Your task to perform on an android device: Is it going to rain tomorrow? Image 0: 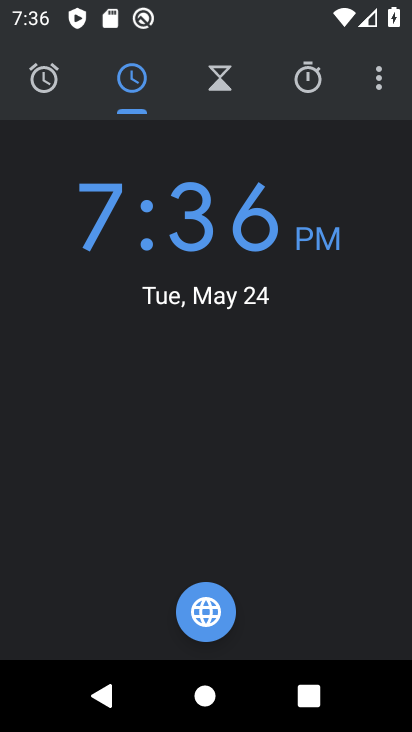
Step 0: press home button
Your task to perform on an android device: Is it going to rain tomorrow? Image 1: 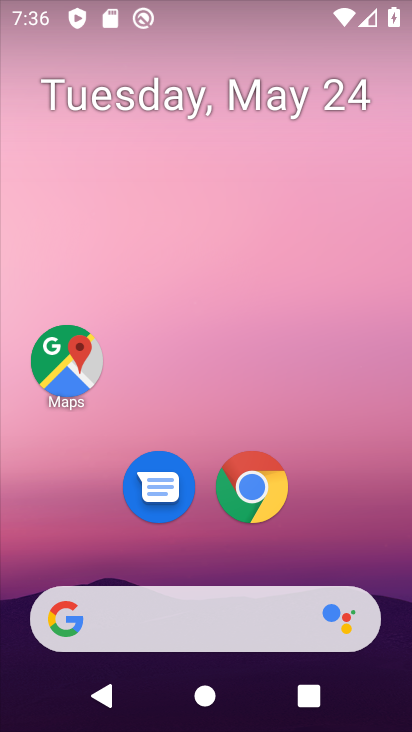
Step 1: click (241, 477)
Your task to perform on an android device: Is it going to rain tomorrow? Image 2: 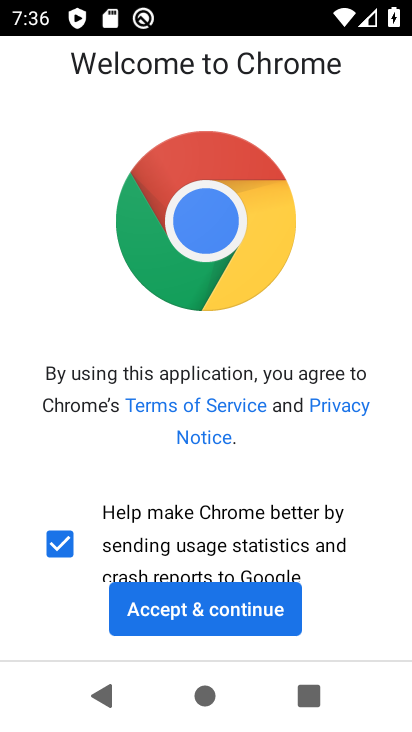
Step 2: click (227, 610)
Your task to perform on an android device: Is it going to rain tomorrow? Image 3: 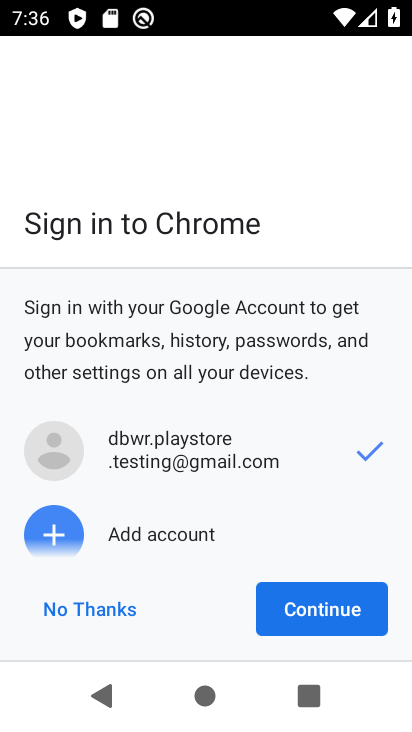
Step 3: click (294, 602)
Your task to perform on an android device: Is it going to rain tomorrow? Image 4: 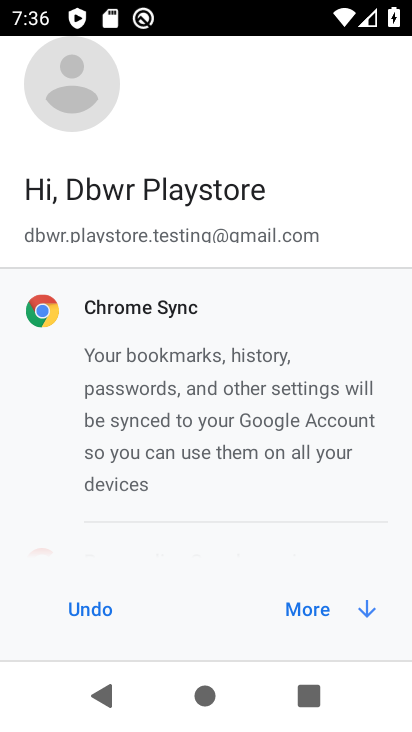
Step 4: click (299, 606)
Your task to perform on an android device: Is it going to rain tomorrow? Image 5: 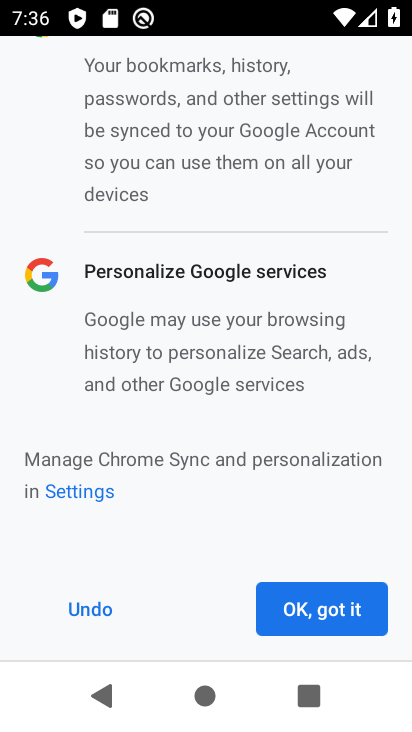
Step 5: click (299, 606)
Your task to perform on an android device: Is it going to rain tomorrow? Image 6: 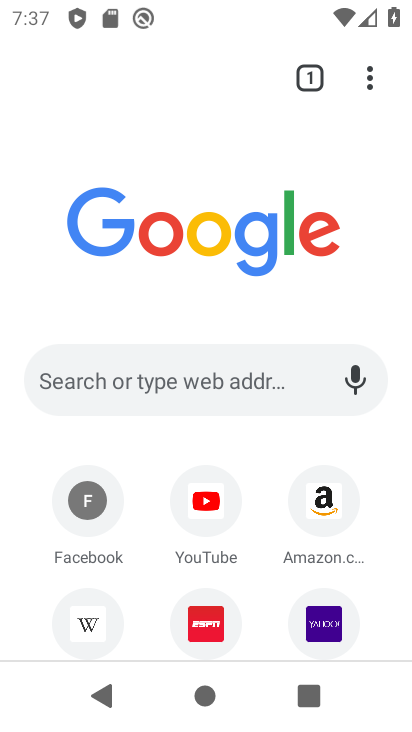
Step 6: click (146, 382)
Your task to perform on an android device: Is it going to rain tomorrow? Image 7: 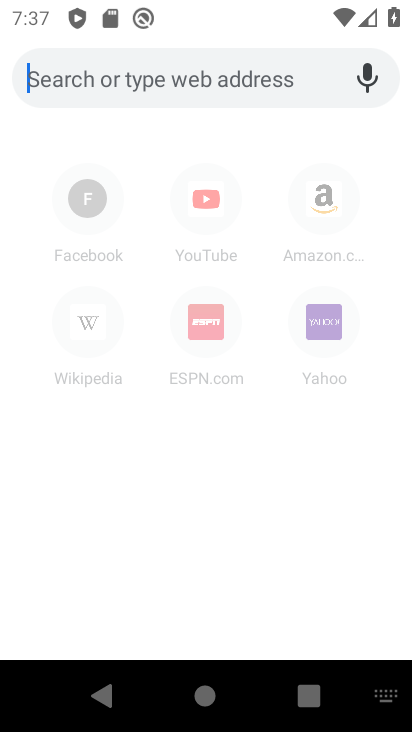
Step 7: type "Is it going to rain tomorrow?"
Your task to perform on an android device: Is it going to rain tomorrow? Image 8: 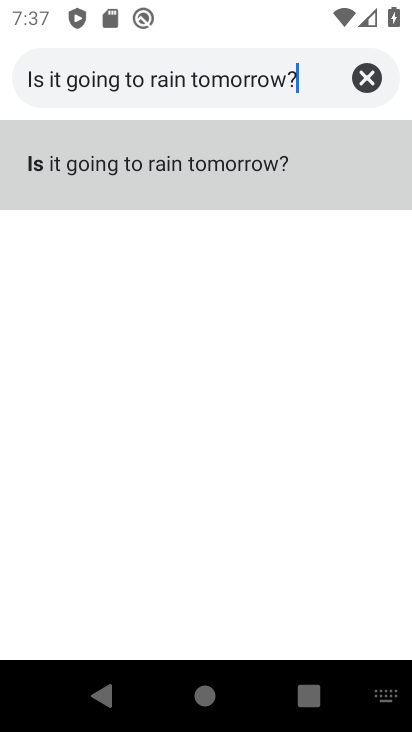
Step 8: click (134, 172)
Your task to perform on an android device: Is it going to rain tomorrow? Image 9: 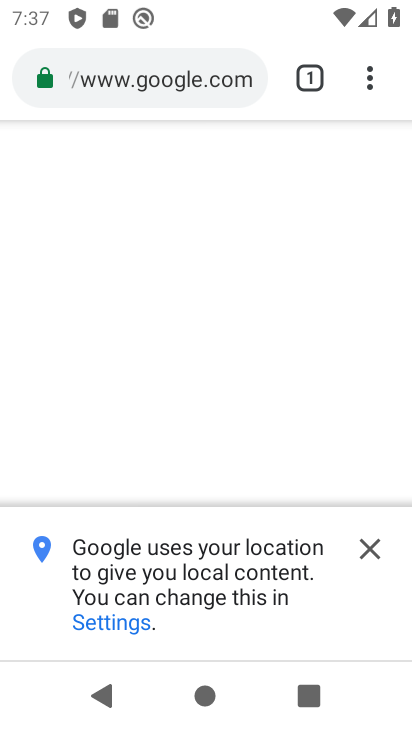
Step 9: click (375, 537)
Your task to perform on an android device: Is it going to rain tomorrow? Image 10: 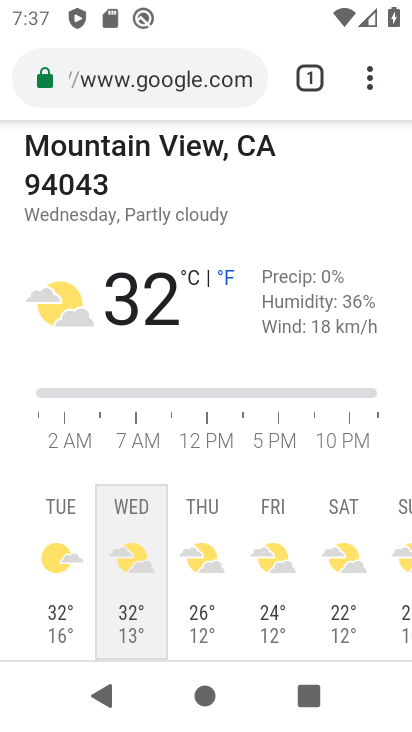
Step 10: task complete